Your task to perform on an android device: turn on javascript in the chrome app Image 0: 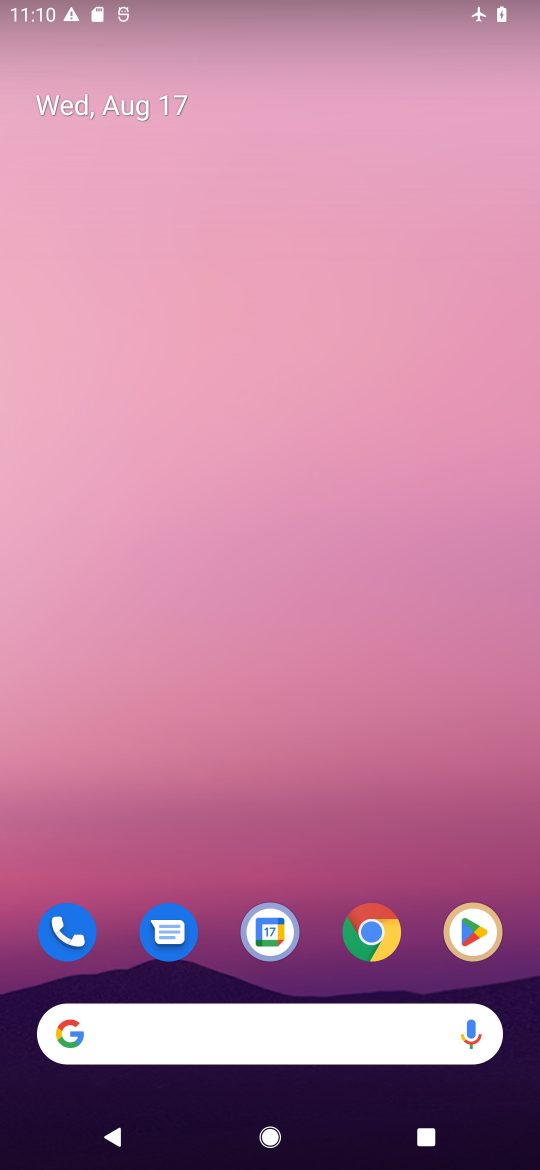
Step 0: click (363, 948)
Your task to perform on an android device: turn on javascript in the chrome app Image 1: 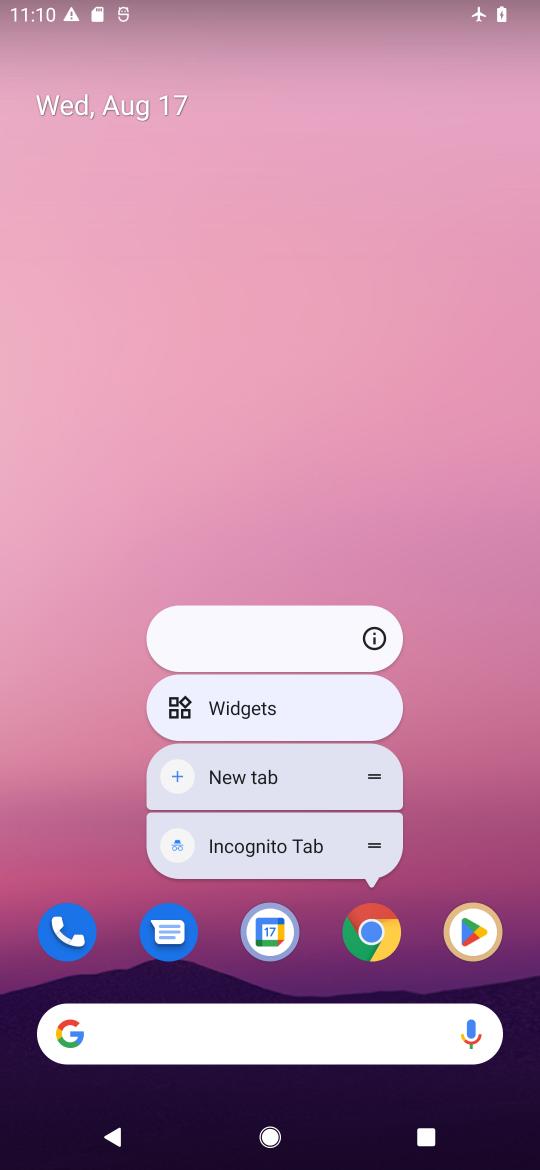
Step 1: click (392, 949)
Your task to perform on an android device: turn on javascript in the chrome app Image 2: 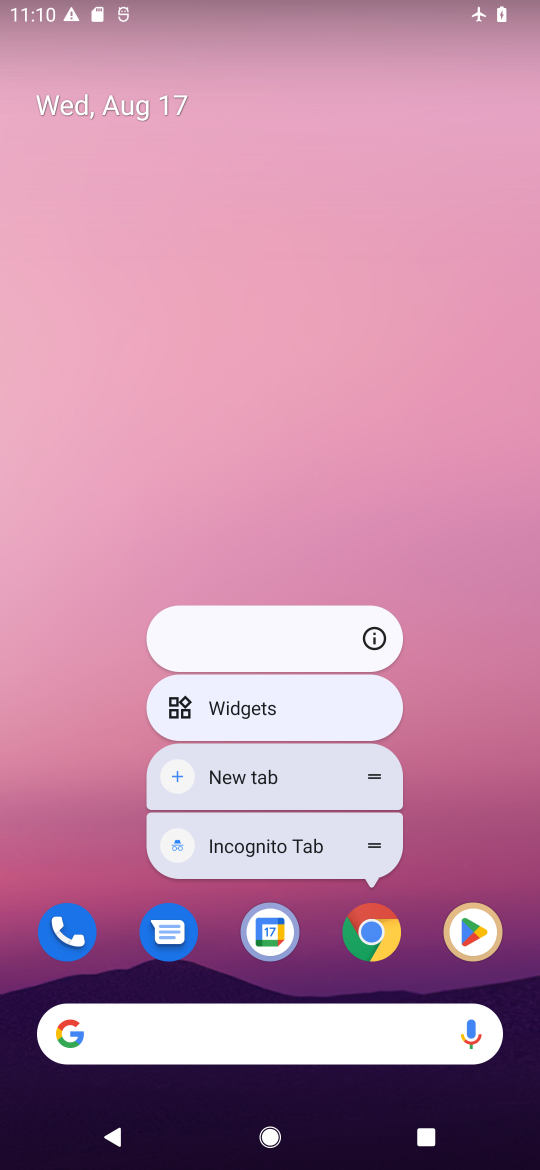
Step 2: click (366, 939)
Your task to perform on an android device: turn on javascript in the chrome app Image 3: 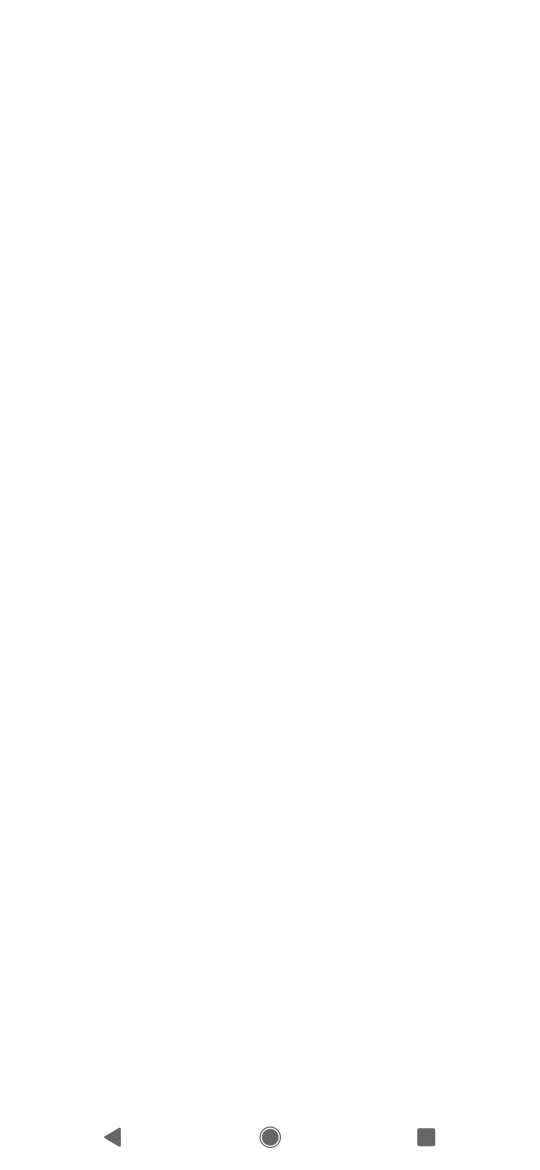
Step 3: task complete